Your task to perform on an android device: add a contact in the contacts app Image 0: 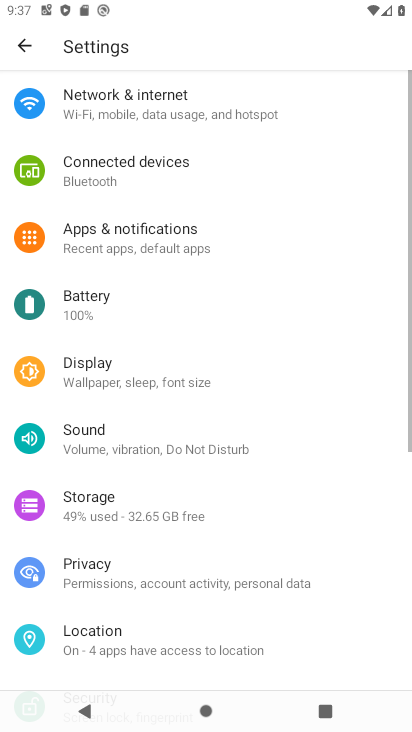
Step 0: press home button
Your task to perform on an android device: add a contact in the contacts app Image 1: 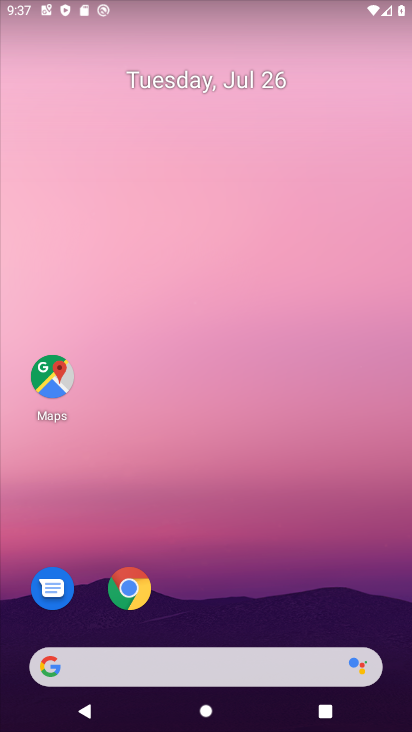
Step 1: drag from (181, 661) to (252, 106)
Your task to perform on an android device: add a contact in the contacts app Image 2: 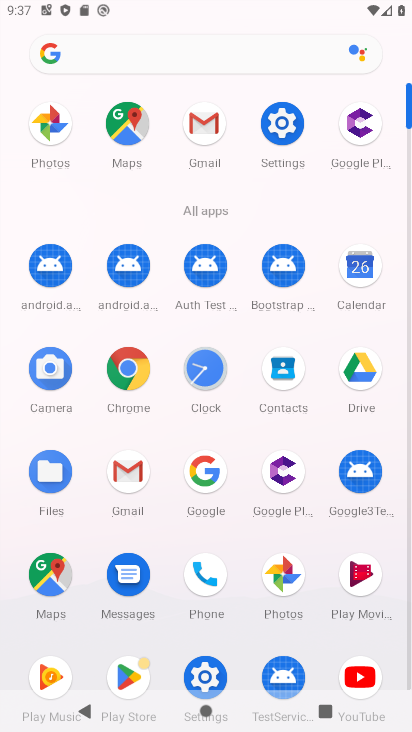
Step 2: click (275, 372)
Your task to perform on an android device: add a contact in the contacts app Image 3: 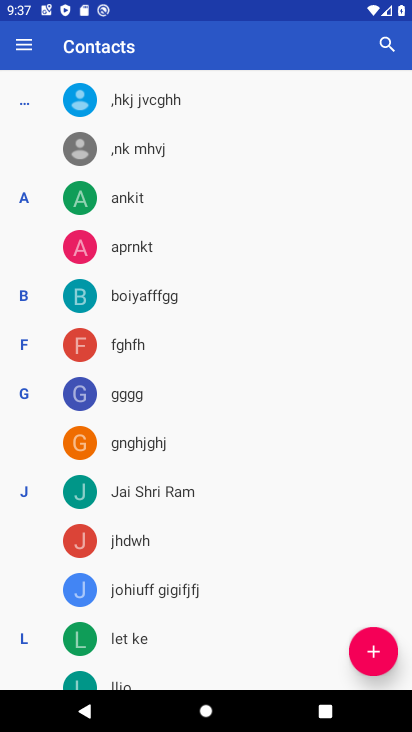
Step 3: click (375, 650)
Your task to perform on an android device: add a contact in the contacts app Image 4: 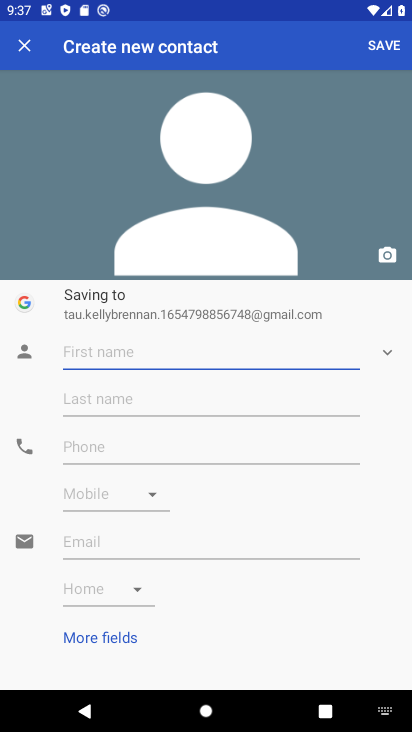
Step 4: click (243, 357)
Your task to perform on an android device: add a contact in the contacts app Image 5: 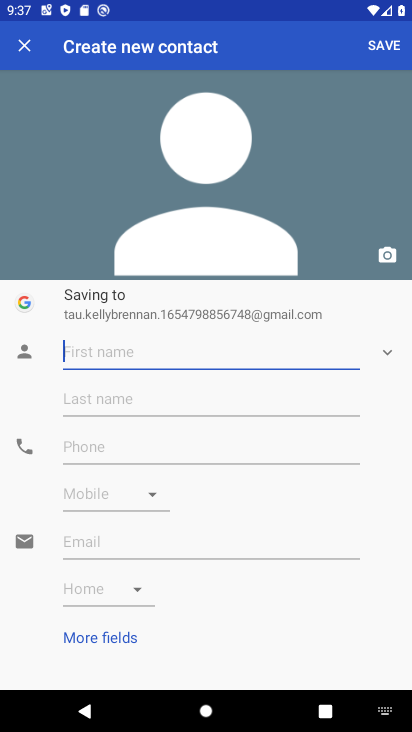
Step 5: type "Ashwani"
Your task to perform on an android device: add a contact in the contacts app Image 6: 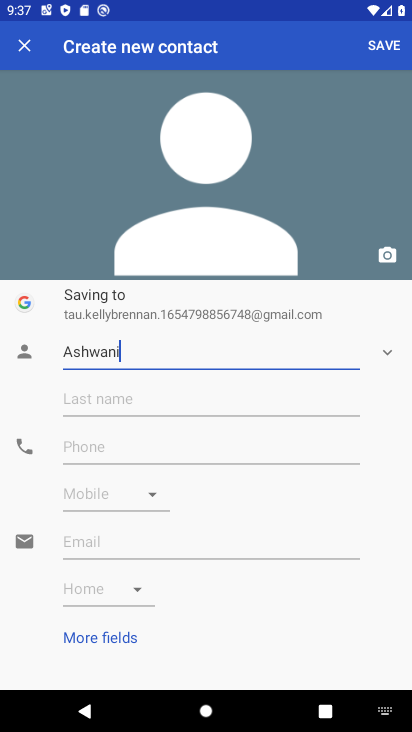
Step 6: click (126, 400)
Your task to perform on an android device: add a contact in the contacts app Image 7: 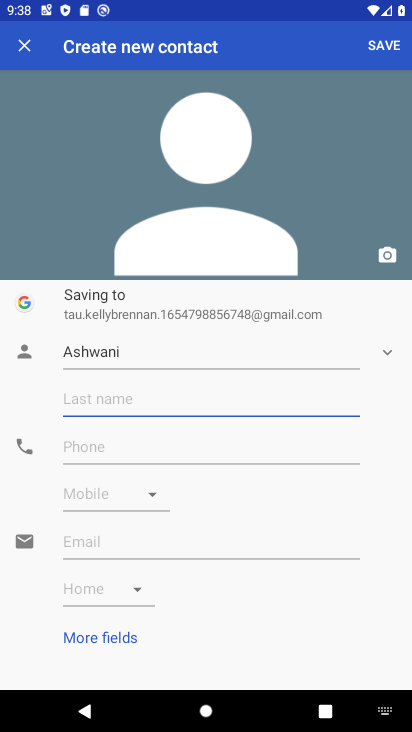
Step 7: type "Karmakar"
Your task to perform on an android device: add a contact in the contacts app Image 8: 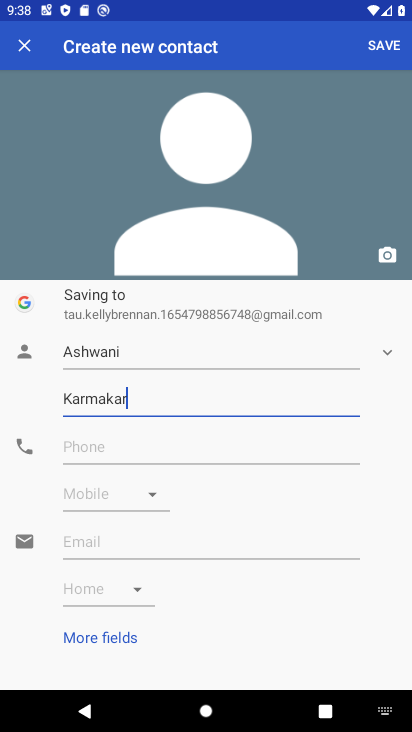
Step 8: click (272, 444)
Your task to perform on an android device: add a contact in the contacts app Image 9: 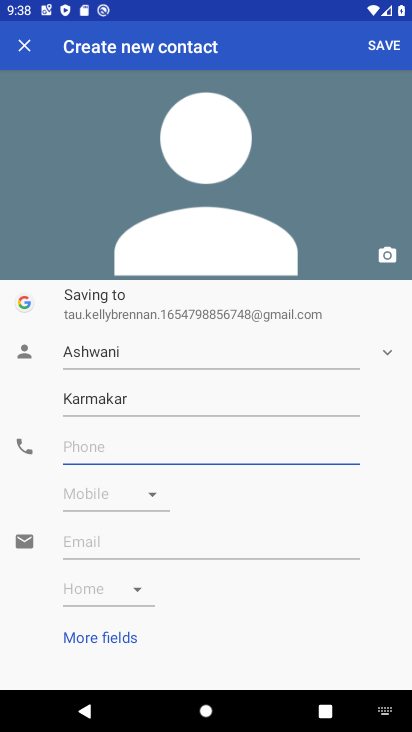
Step 9: type "0998877665544"
Your task to perform on an android device: add a contact in the contacts app Image 10: 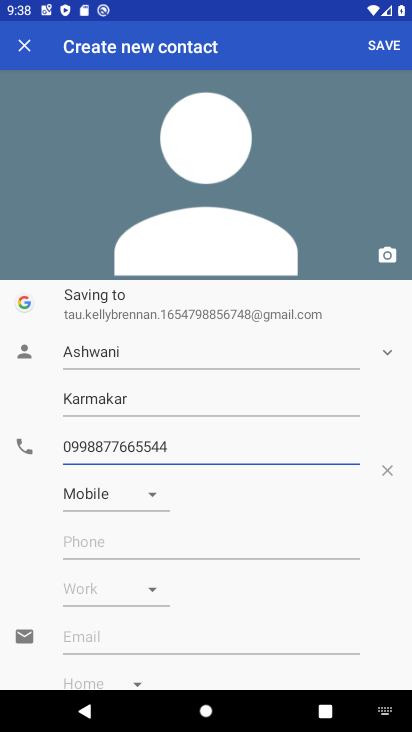
Step 10: click (393, 43)
Your task to perform on an android device: add a contact in the contacts app Image 11: 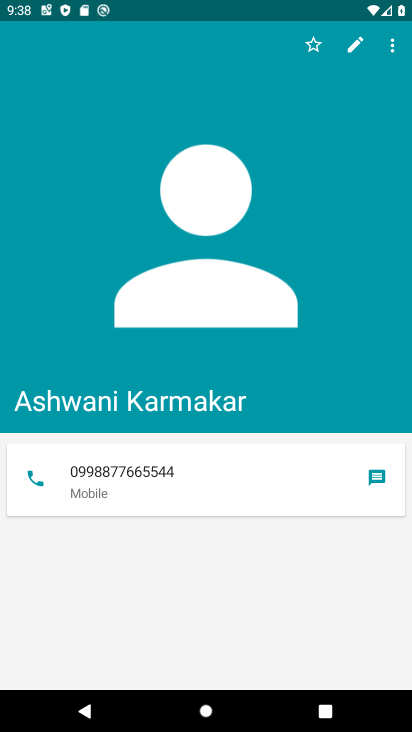
Step 11: task complete